Your task to perform on an android device: Go to battery settings Image 0: 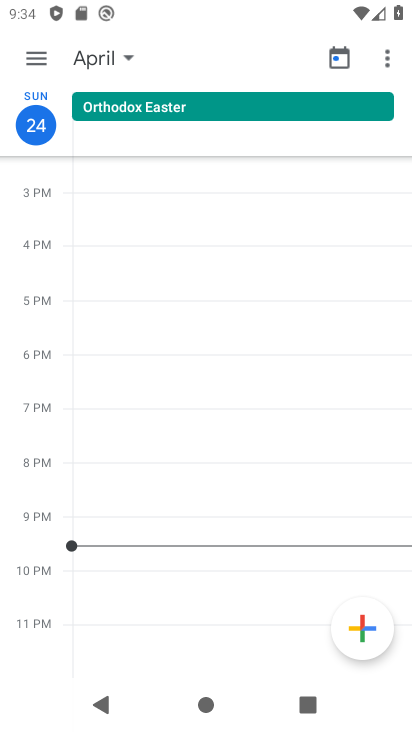
Step 0: press home button
Your task to perform on an android device: Go to battery settings Image 1: 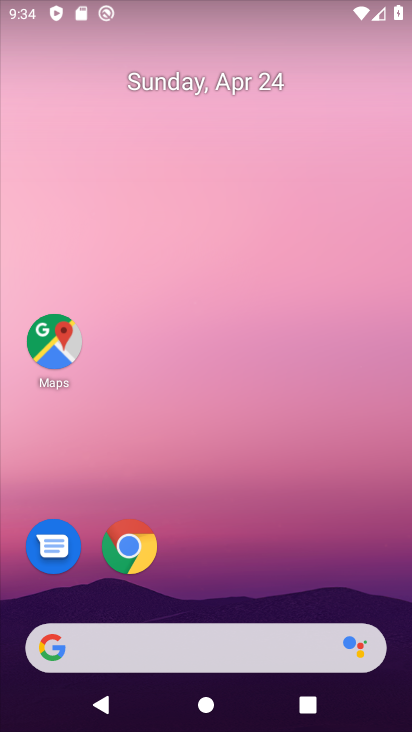
Step 1: drag from (263, 602) to (302, 53)
Your task to perform on an android device: Go to battery settings Image 2: 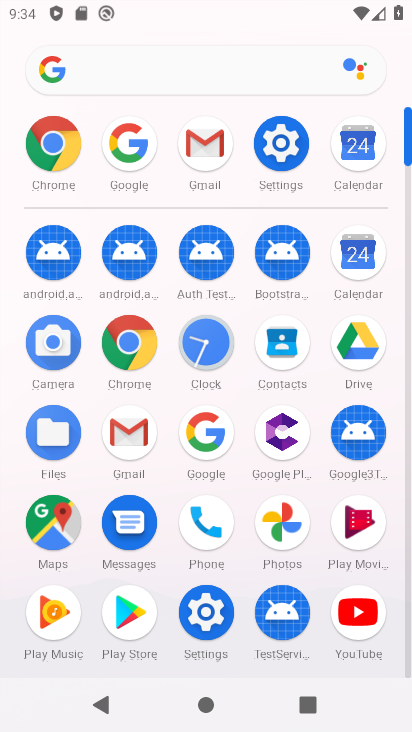
Step 2: click (282, 144)
Your task to perform on an android device: Go to battery settings Image 3: 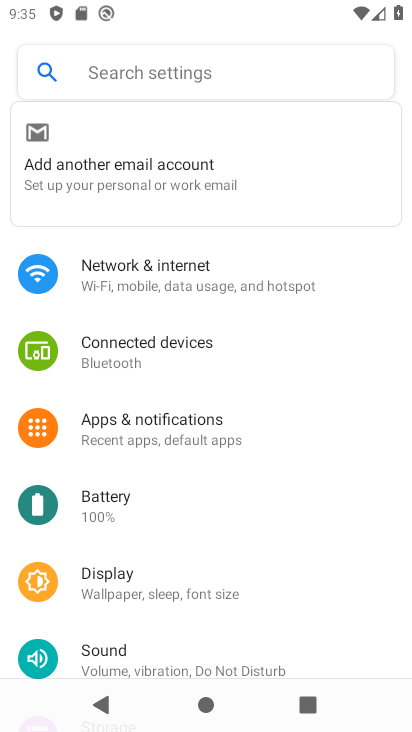
Step 3: drag from (189, 607) to (217, 190)
Your task to perform on an android device: Go to battery settings Image 4: 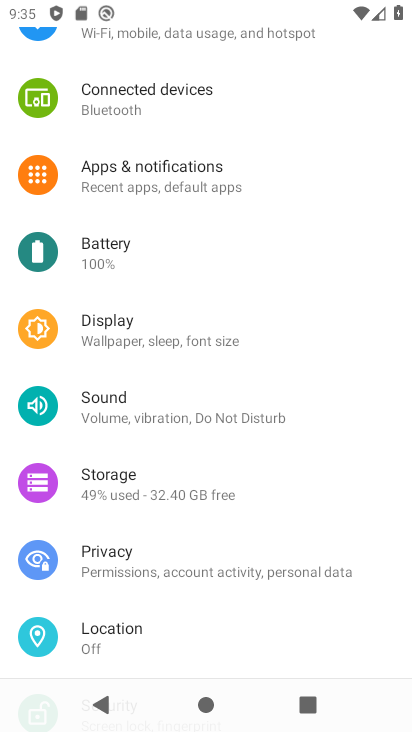
Step 4: drag from (161, 522) to (200, 155)
Your task to perform on an android device: Go to battery settings Image 5: 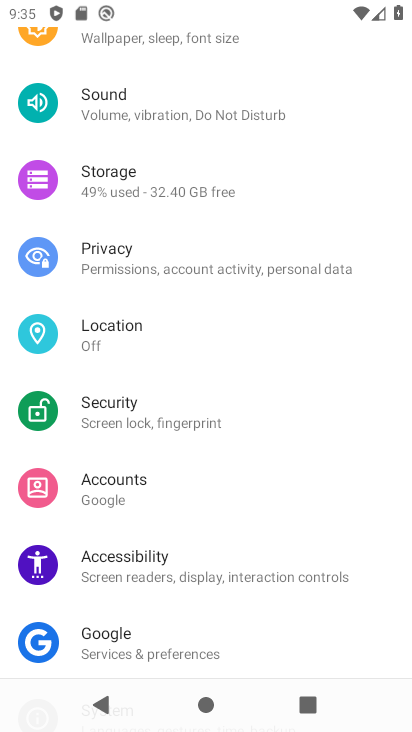
Step 5: drag from (254, 188) to (230, 685)
Your task to perform on an android device: Go to battery settings Image 6: 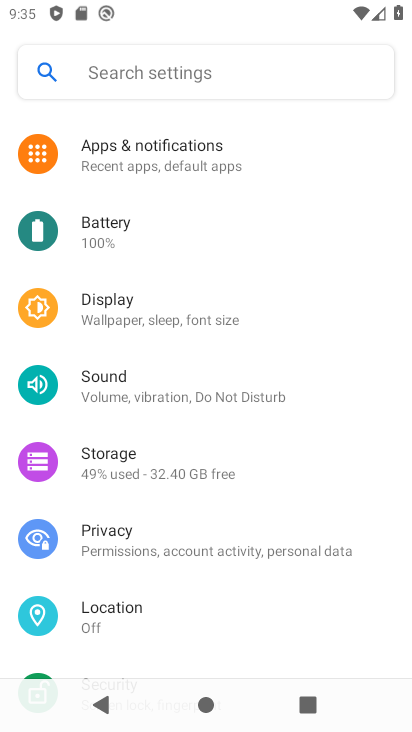
Step 6: click (302, 206)
Your task to perform on an android device: Go to battery settings Image 7: 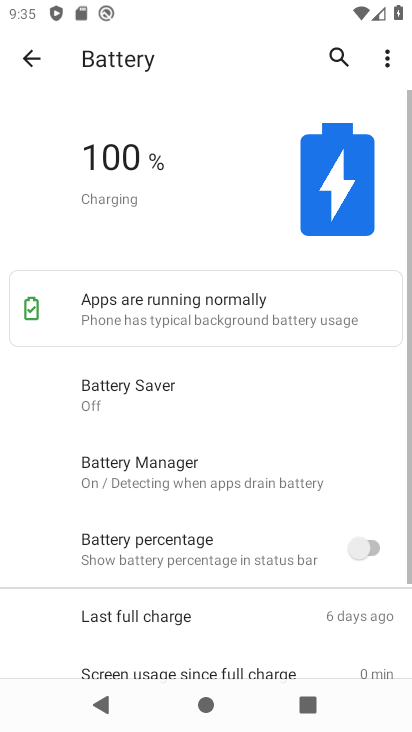
Step 7: task complete